Your task to perform on an android device: What's the weather? Image 0: 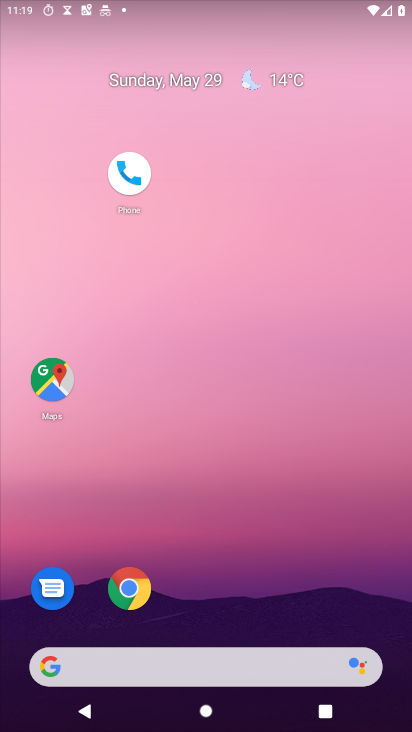
Step 0: drag from (238, 349) to (400, 406)
Your task to perform on an android device: What's the weather? Image 1: 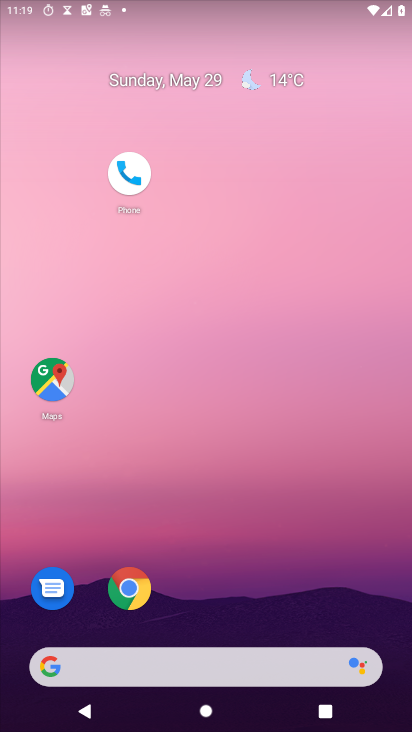
Step 1: drag from (29, 245) to (394, 305)
Your task to perform on an android device: What's the weather? Image 2: 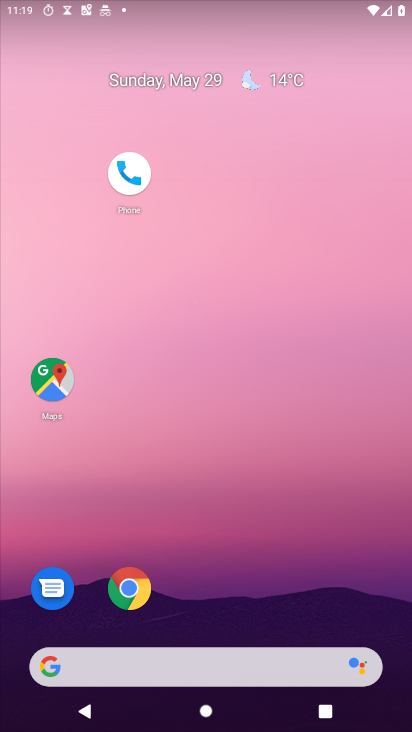
Step 2: drag from (30, 222) to (349, 299)
Your task to perform on an android device: What's the weather? Image 3: 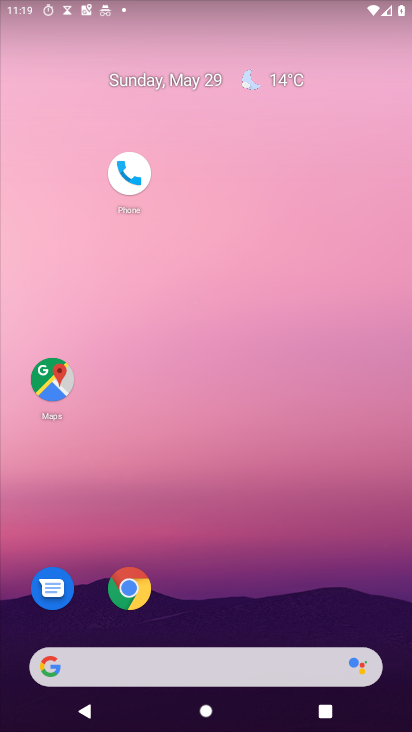
Step 3: click (313, 531)
Your task to perform on an android device: What's the weather? Image 4: 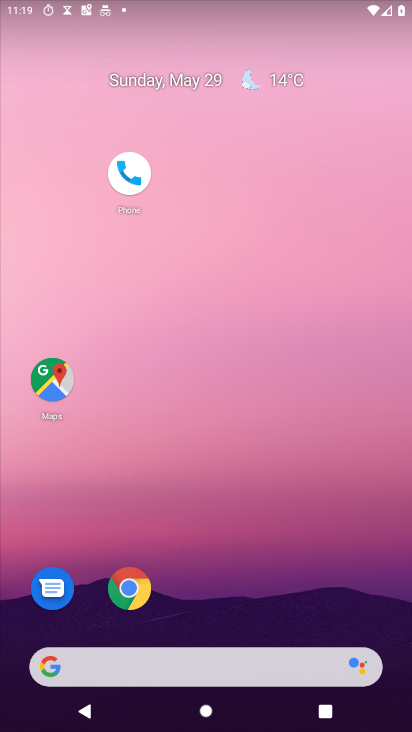
Step 4: drag from (284, 517) to (364, 604)
Your task to perform on an android device: What's the weather? Image 5: 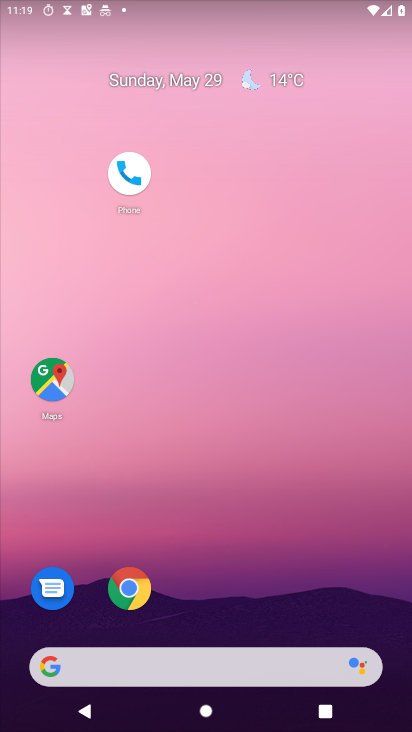
Step 5: drag from (174, 343) to (406, 508)
Your task to perform on an android device: What's the weather? Image 6: 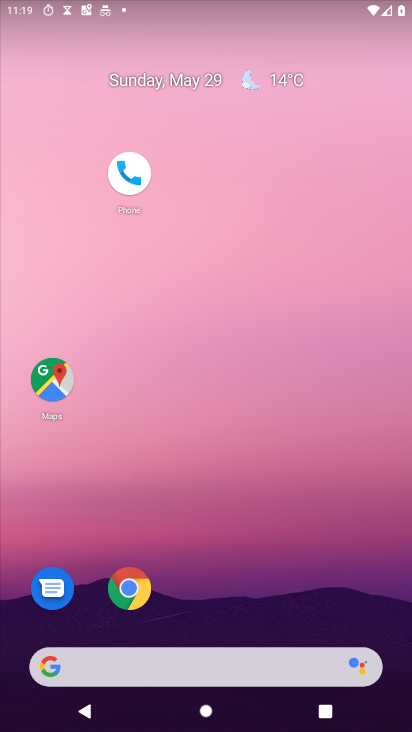
Step 6: drag from (337, 517) to (371, 549)
Your task to perform on an android device: What's the weather? Image 7: 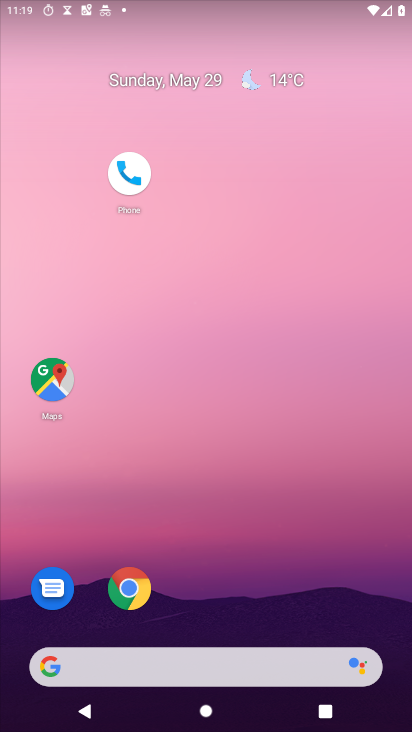
Step 7: drag from (37, 168) to (342, 407)
Your task to perform on an android device: What's the weather? Image 8: 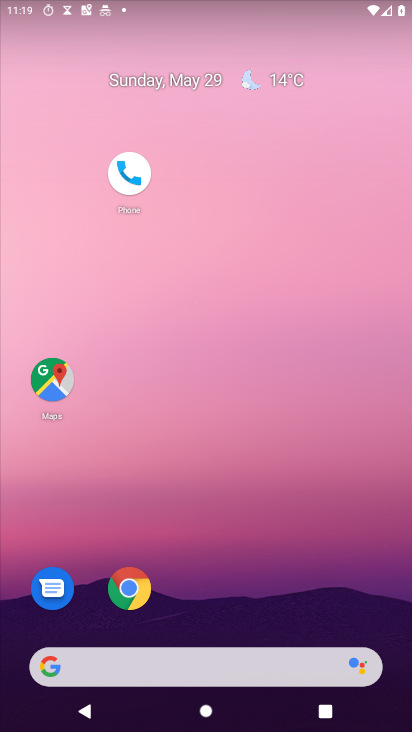
Step 8: click (378, 306)
Your task to perform on an android device: What's the weather? Image 9: 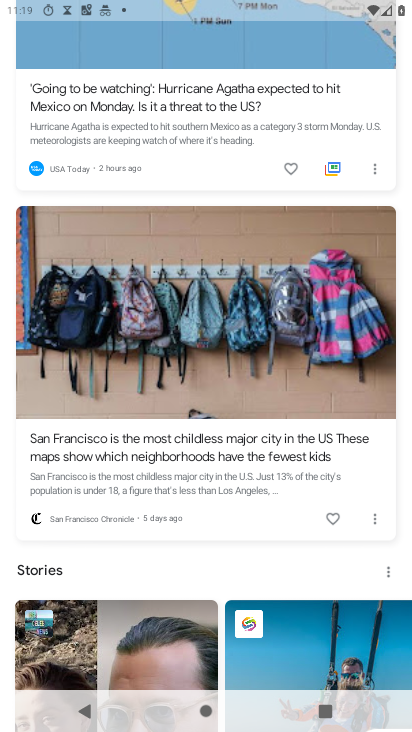
Step 9: drag from (61, 169) to (347, 491)
Your task to perform on an android device: What's the weather? Image 10: 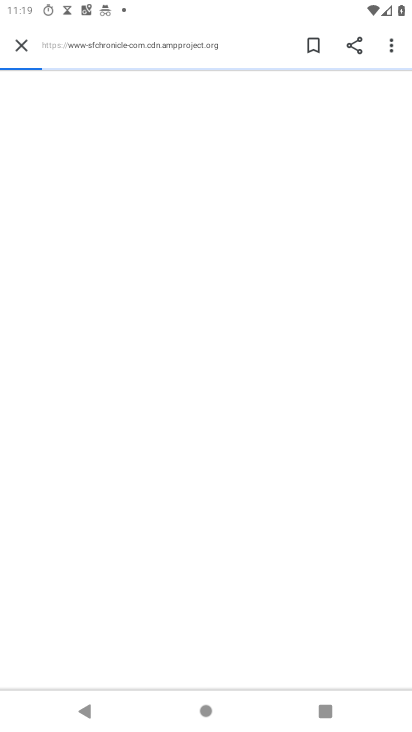
Step 10: drag from (280, 411) to (359, 531)
Your task to perform on an android device: What's the weather? Image 11: 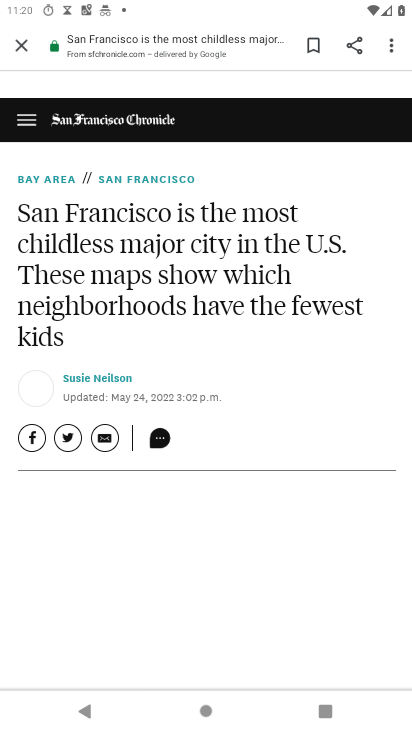
Step 11: drag from (261, 380) to (258, 225)
Your task to perform on an android device: What's the weather? Image 12: 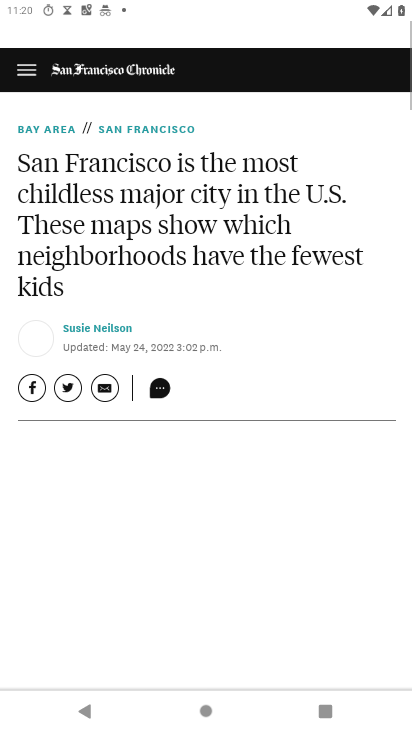
Step 12: drag from (219, 482) to (215, 201)
Your task to perform on an android device: What's the weather? Image 13: 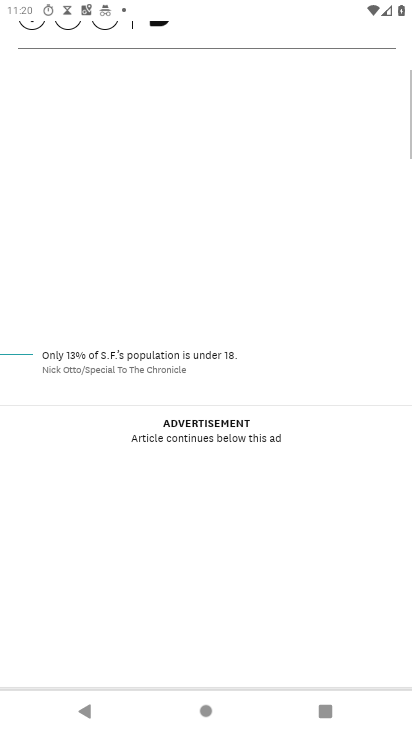
Step 13: drag from (218, 259) to (217, 362)
Your task to perform on an android device: What's the weather? Image 14: 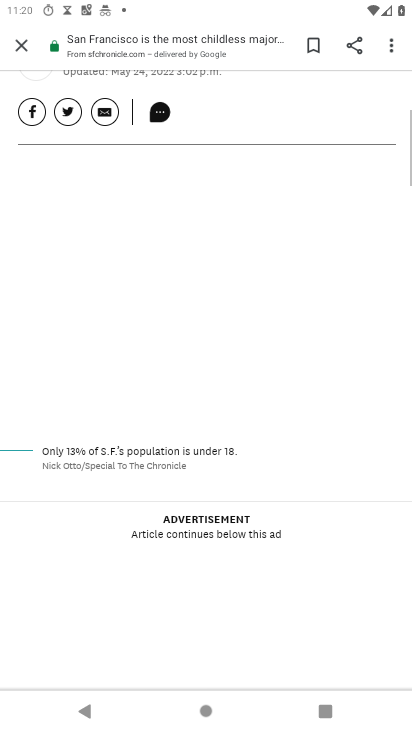
Step 14: drag from (197, 243) to (223, 543)
Your task to perform on an android device: What's the weather? Image 15: 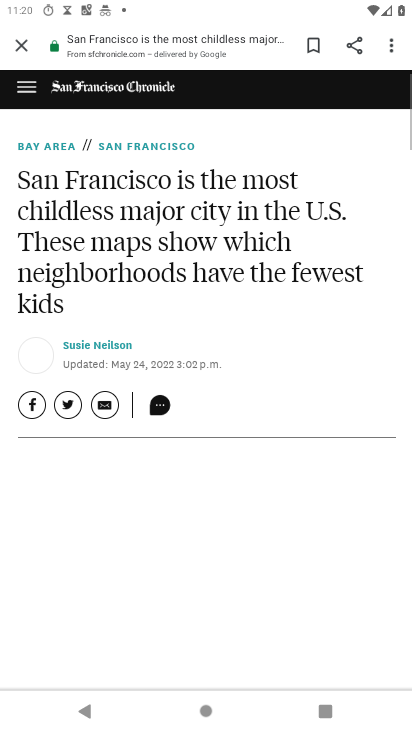
Step 15: drag from (216, 325) to (231, 427)
Your task to perform on an android device: What's the weather? Image 16: 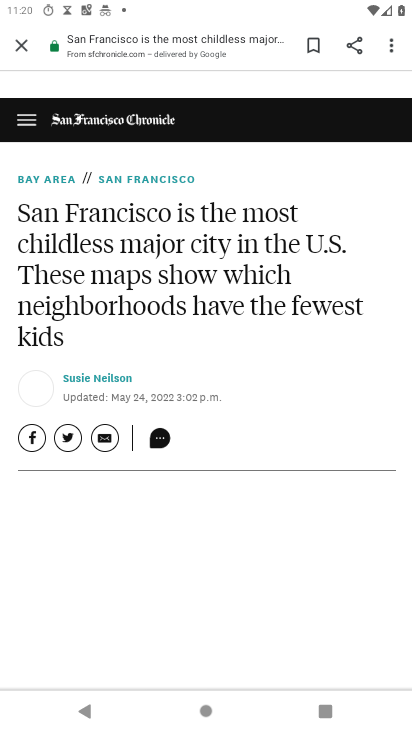
Step 16: drag from (213, 238) to (165, 566)
Your task to perform on an android device: What's the weather? Image 17: 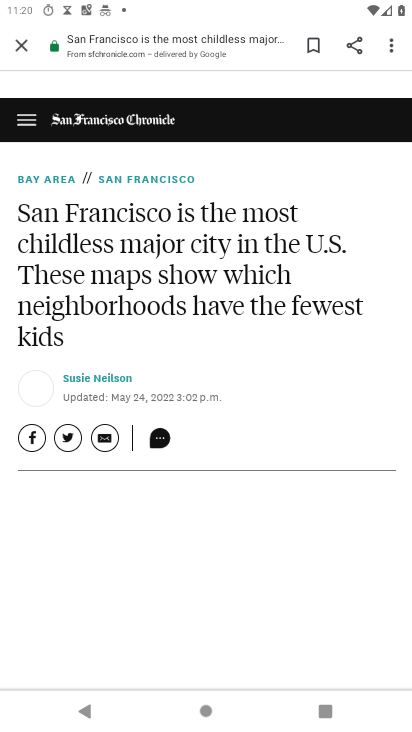
Step 17: click (228, 47)
Your task to perform on an android device: What's the weather? Image 18: 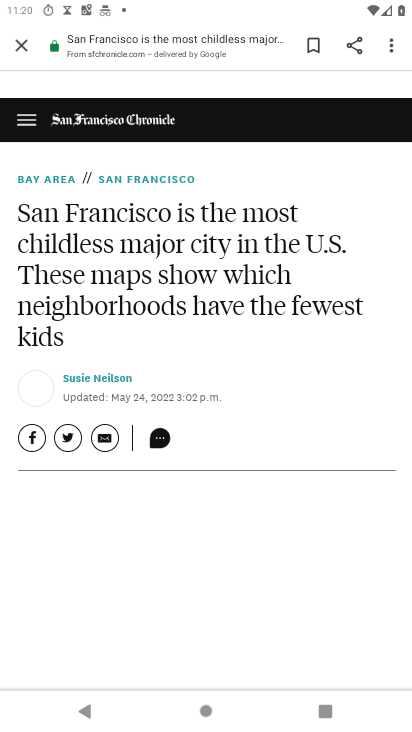
Step 18: task complete